Your task to perform on an android device: turn vacation reply on in the gmail app Image 0: 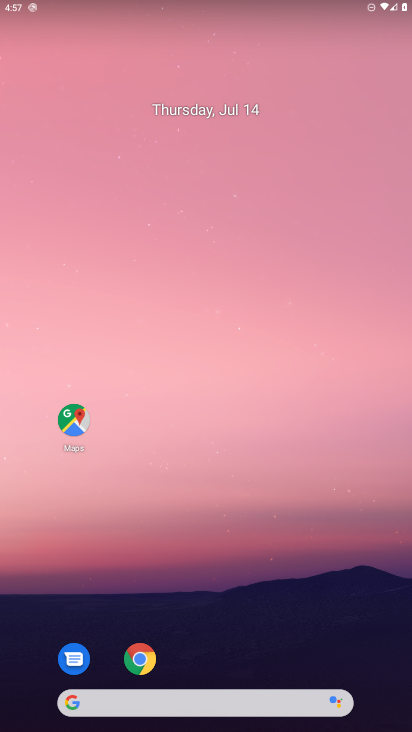
Step 0: drag from (214, 671) to (230, 24)
Your task to perform on an android device: turn vacation reply on in the gmail app Image 1: 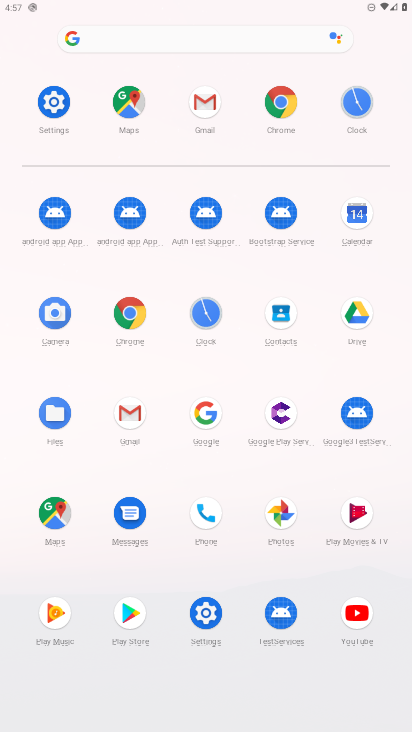
Step 1: click (128, 410)
Your task to perform on an android device: turn vacation reply on in the gmail app Image 2: 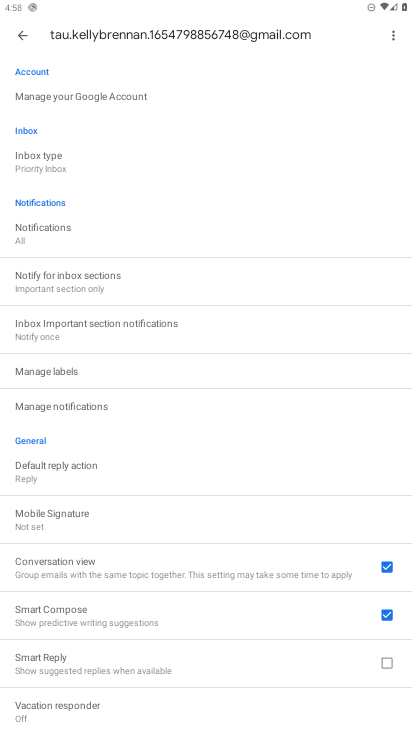
Step 2: click (112, 705)
Your task to perform on an android device: turn vacation reply on in the gmail app Image 3: 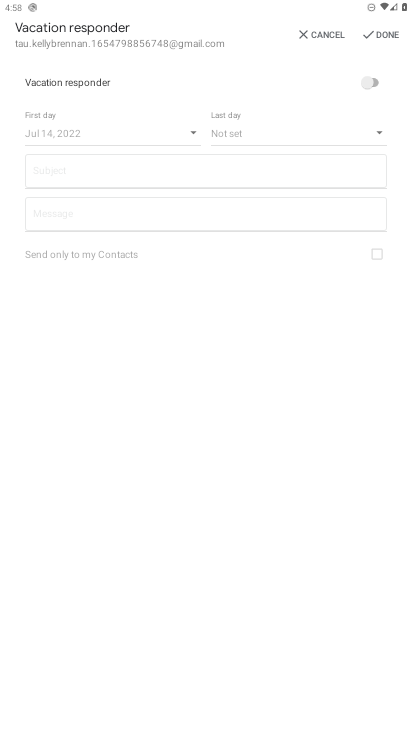
Step 3: task complete